Your task to perform on an android device: move a message to another label in the gmail app Image 0: 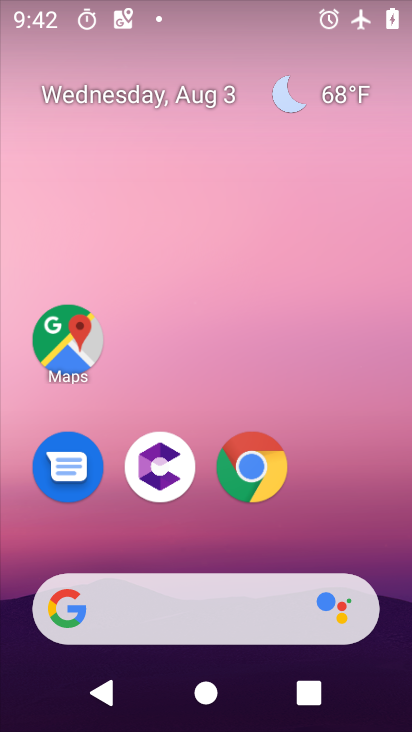
Step 0: drag from (351, 522) to (255, 38)
Your task to perform on an android device: move a message to another label in the gmail app Image 1: 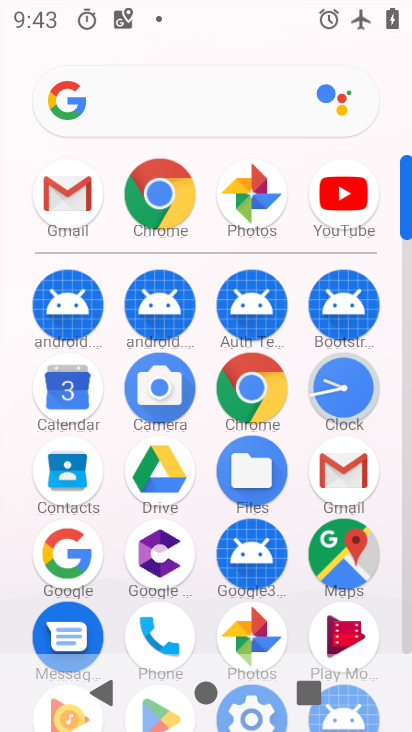
Step 1: click (83, 185)
Your task to perform on an android device: move a message to another label in the gmail app Image 2: 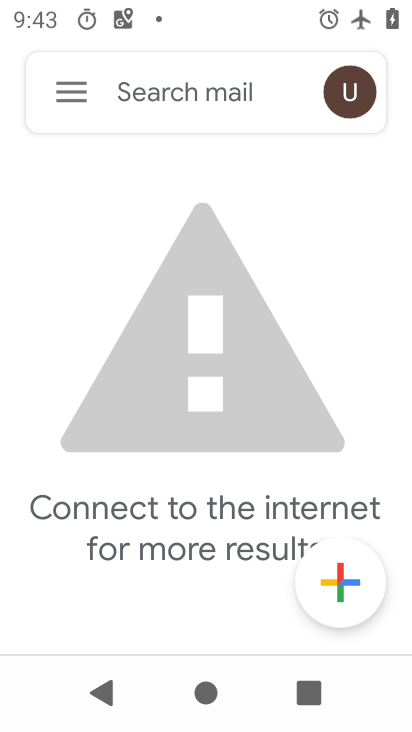
Step 2: click (78, 96)
Your task to perform on an android device: move a message to another label in the gmail app Image 3: 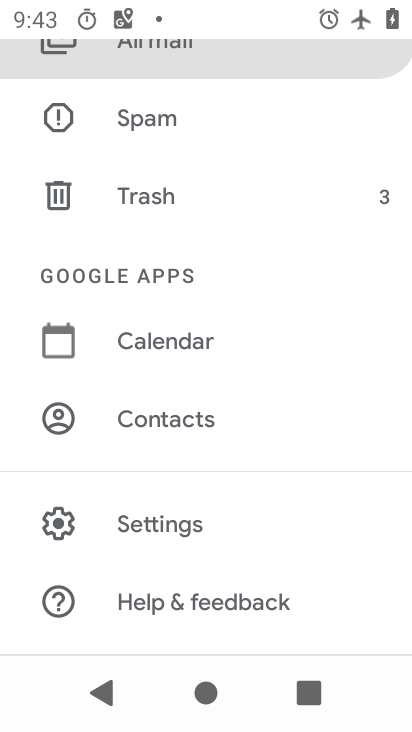
Step 3: click (178, 56)
Your task to perform on an android device: move a message to another label in the gmail app Image 4: 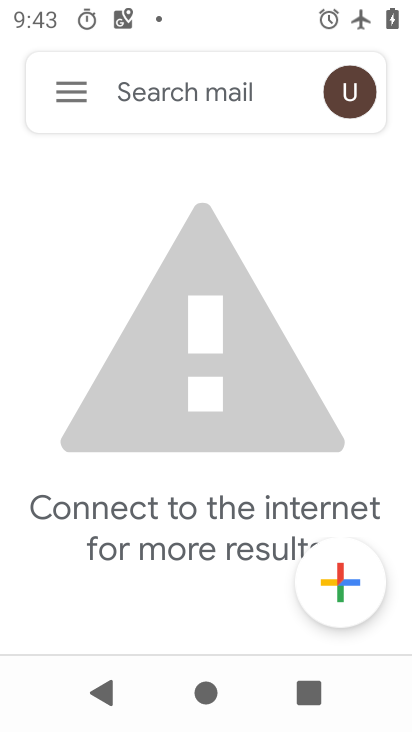
Step 4: task complete